Your task to perform on an android device: allow notifications from all sites in the chrome app Image 0: 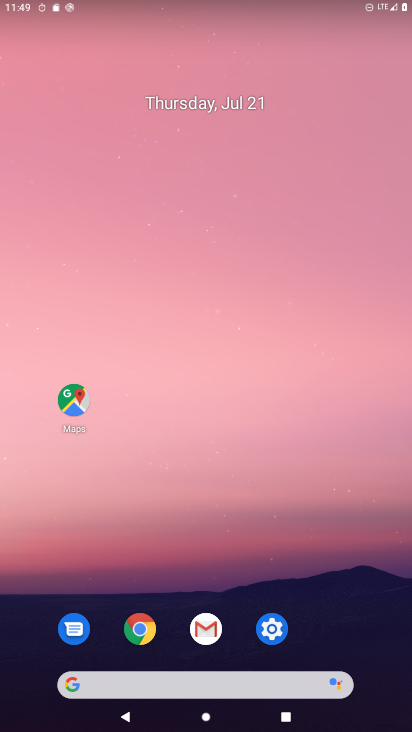
Step 0: click (145, 624)
Your task to perform on an android device: allow notifications from all sites in the chrome app Image 1: 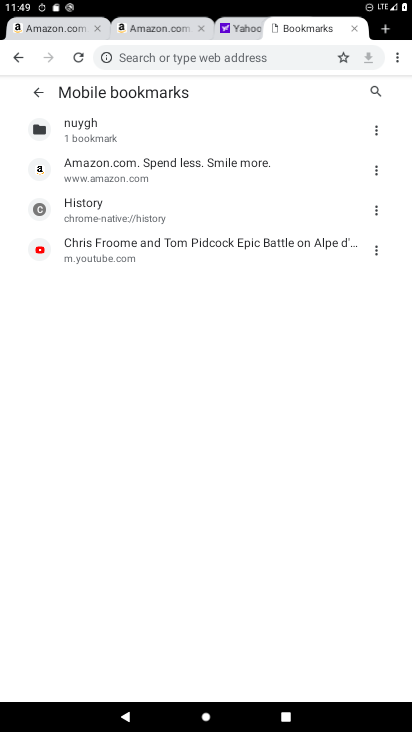
Step 1: click (401, 58)
Your task to perform on an android device: allow notifications from all sites in the chrome app Image 2: 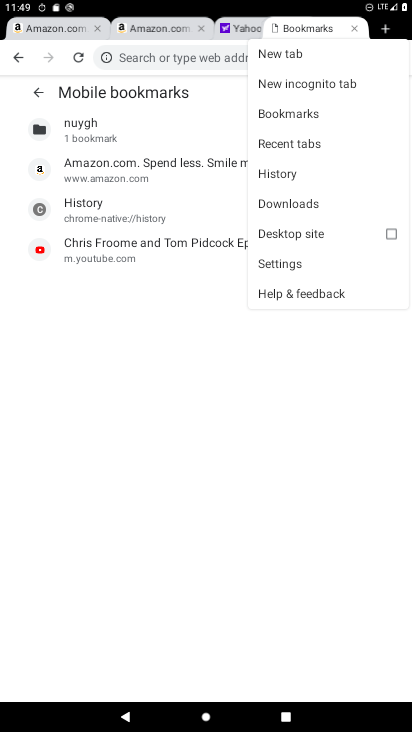
Step 2: click (274, 267)
Your task to perform on an android device: allow notifications from all sites in the chrome app Image 3: 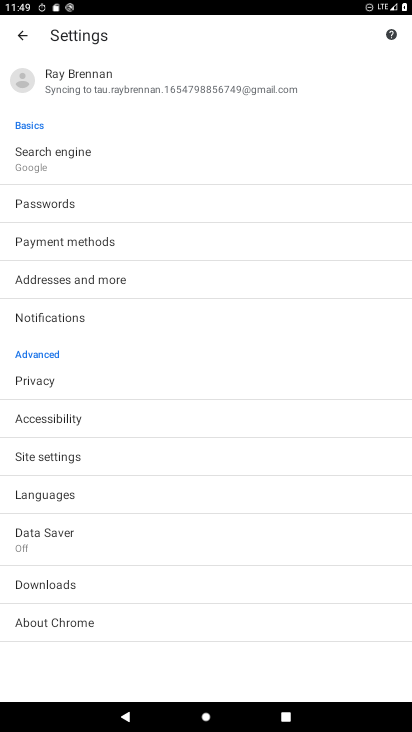
Step 3: click (46, 453)
Your task to perform on an android device: allow notifications from all sites in the chrome app Image 4: 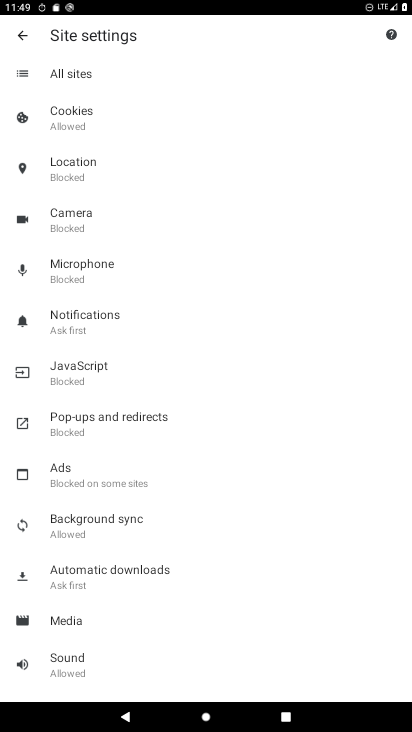
Step 4: click (105, 331)
Your task to perform on an android device: allow notifications from all sites in the chrome app Image 5: 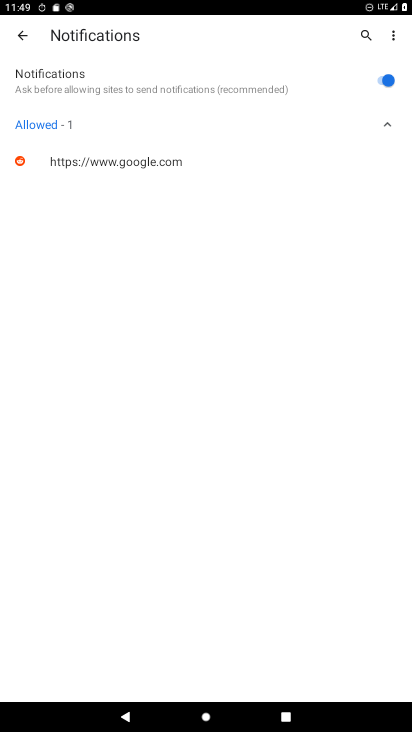
Step 5: click (343, 78)
Your task to perform on an android device: allow notifications from all sites in the chrome app Image 6: 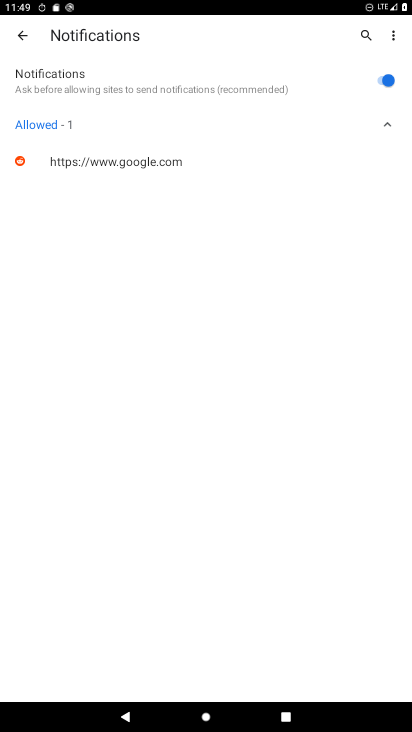
Step 6: click (335, 83)
Your task to perform on an android device: allow notifications from all sites in the chrome app Image 7: 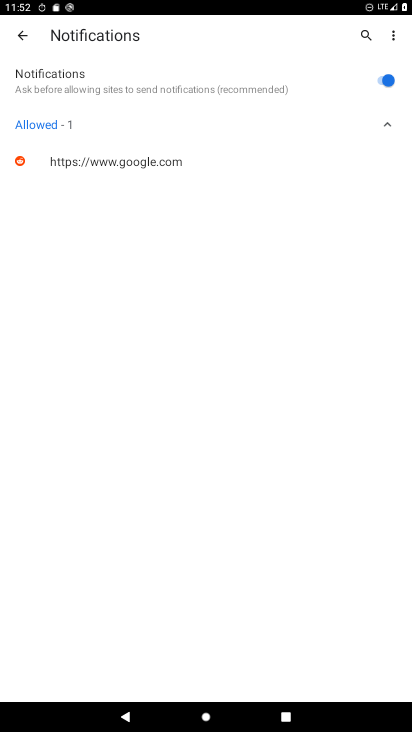
Step 7: task complete